Your task to perform on an android device: turn off data saver in the chrome app Image 0: 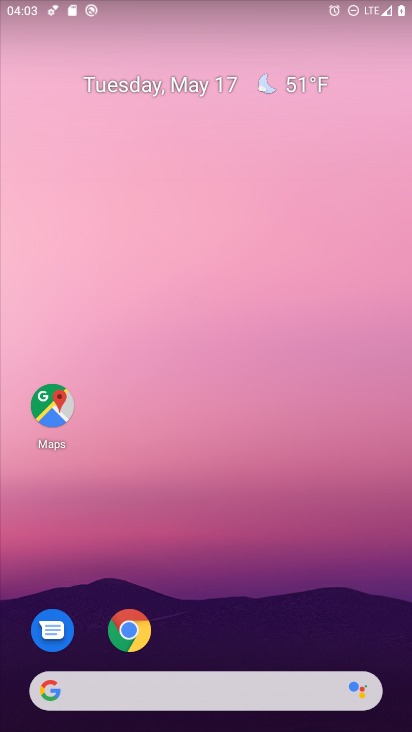
Step 0: click (141, 623)
Your task to perform on an android device: turn off data saver in the chrome app Image 1: 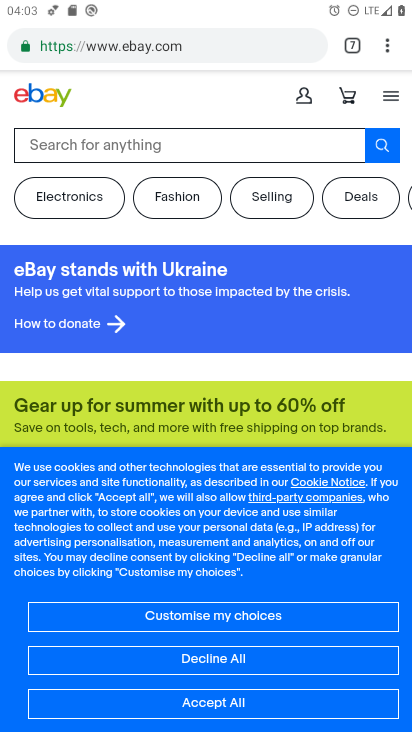
Step 1: click (389, 46)
Your task to perform on an android device: turn off data saver in the chrome app Image 2: 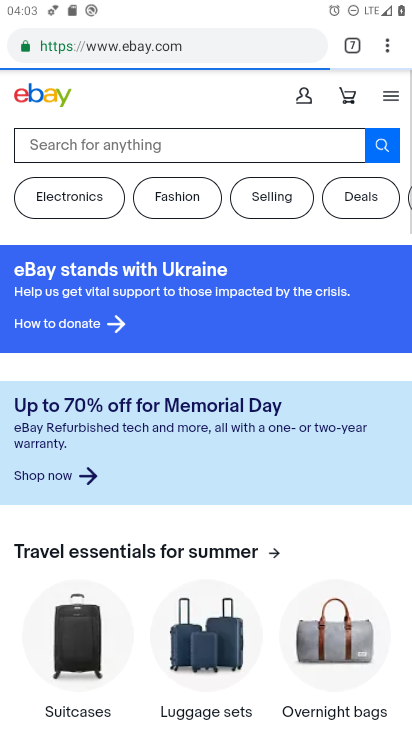
Step 2: drag from (387, 38) to (263, 547)
Your task to perform on an android device: turn off data saver in the chrome app Image 3: 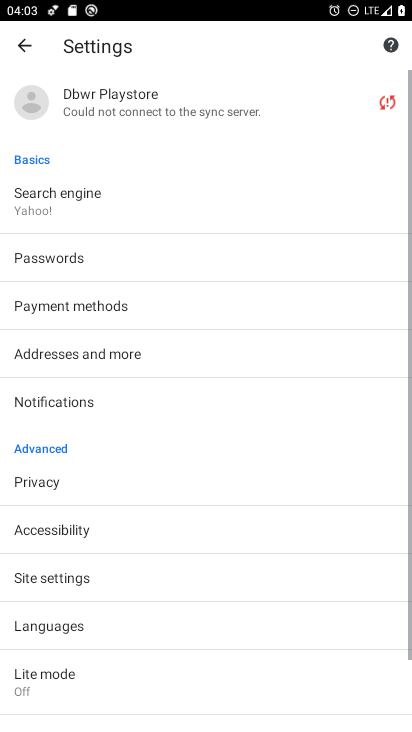
Step 3: drag from (201, 646) to (235, 353)
Your task to perform on an android device: turn off data saver in the chrome app Image 4: 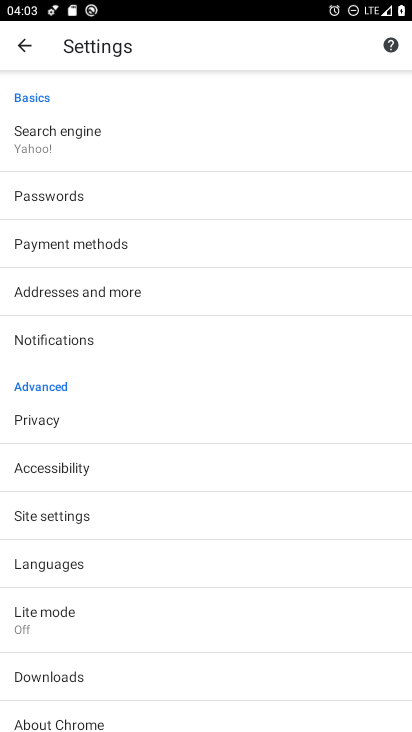
Step 4: click (63, 621)
Your task to perform on an android device: turn off data saver in the chrome app Image 5: 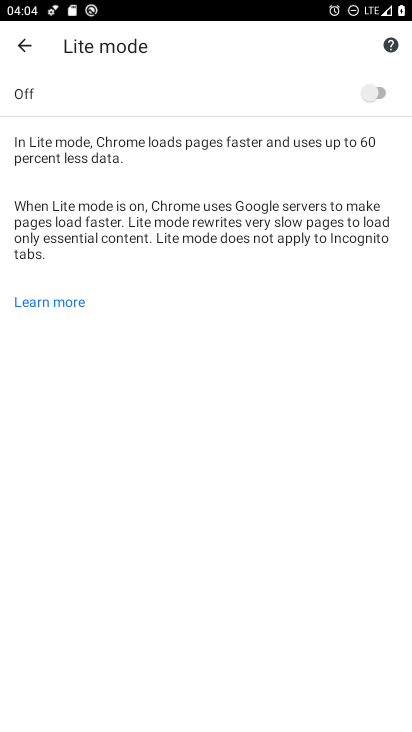
Step 5: task complete